Your task to perform on an android device: turn off data saver in the chrome app Image 0: 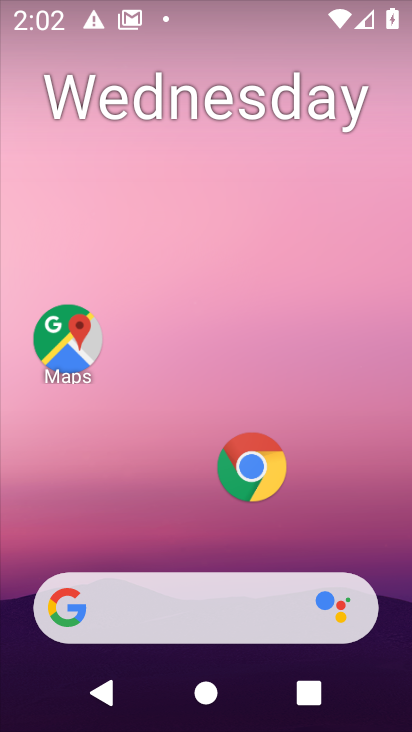
Step 0: drag from (171, 451) to (198, 1)
Your task to perform on an android device: turn off data saver in the chrome app Image 1: 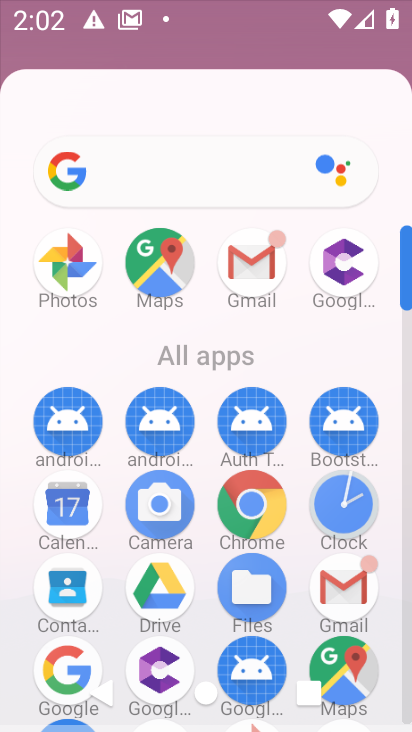
Step 1: task complete